Your task to perform on an android device: Go to location settings Image 0: 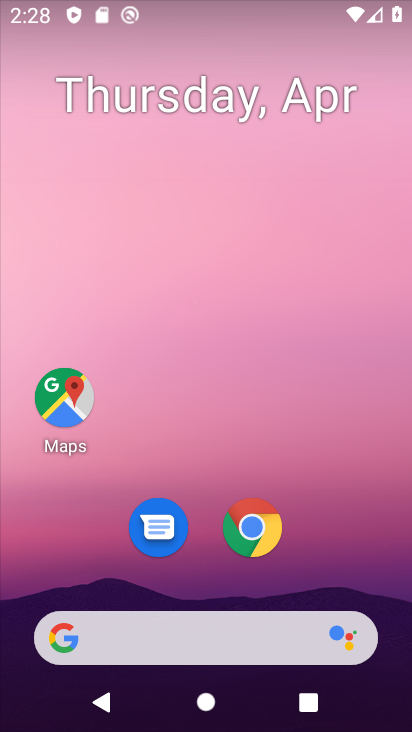
Step 0: drag from (220, 420) to (292, 0)
Your task to perform on an android device: Go to location settings Image 1: 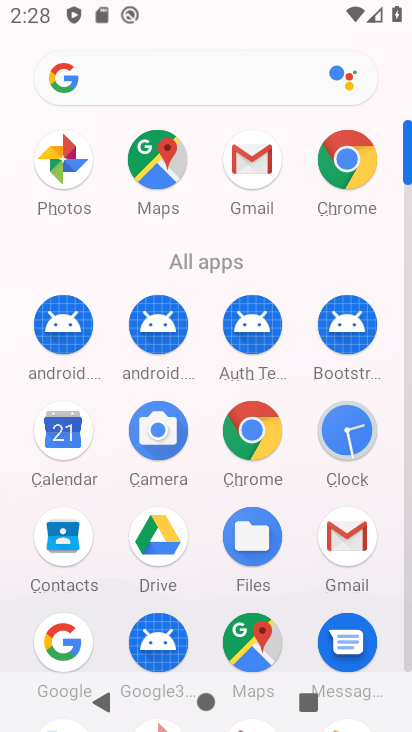
Step 1: drag from (190, 588) to (348, 18)
Your task to perform on an android device: Go to location settings Image 2: 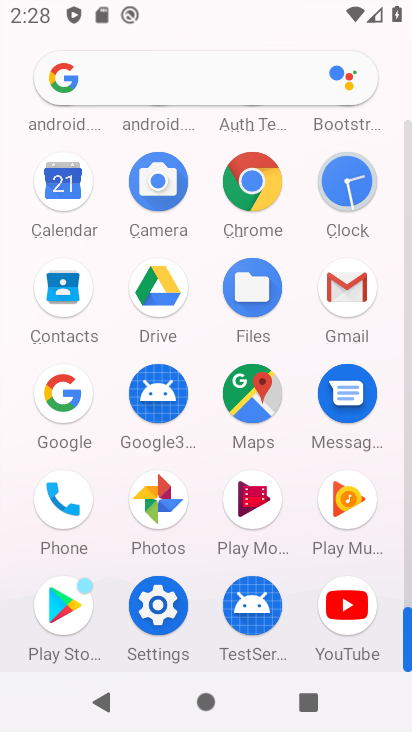
Step 2: click (164, 601)
Your task to perform on an android device: Go to location settings Image 3: 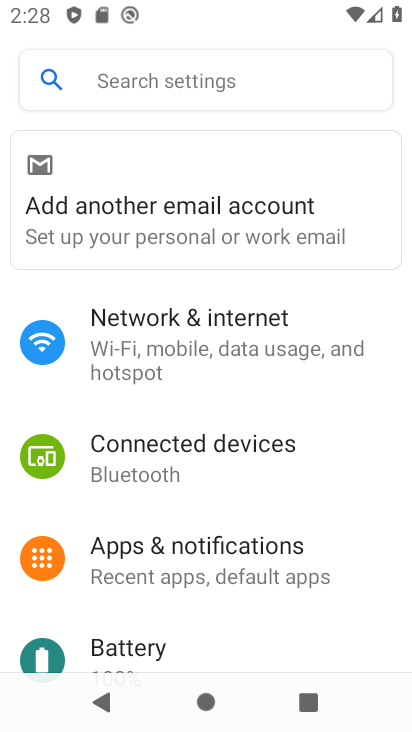
Step 3: drag from (208, 625) to (328, 4)
Your task to perform on an android device: Go to location settings Image 4: 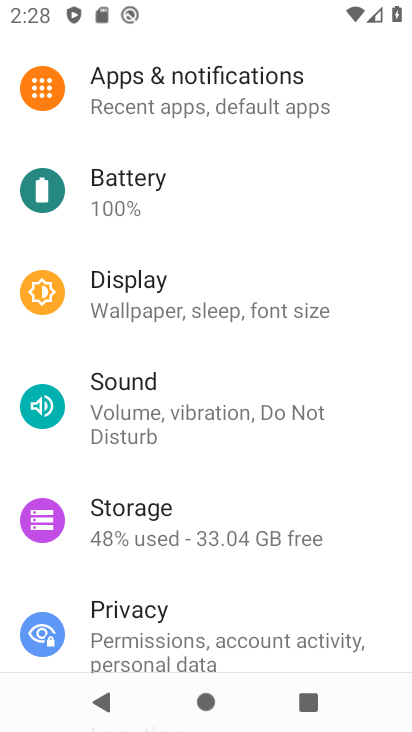
Step 4: drag from (173, 582) to (314, 14)
Your task to perform on an android device: Go to location settings Image 5: 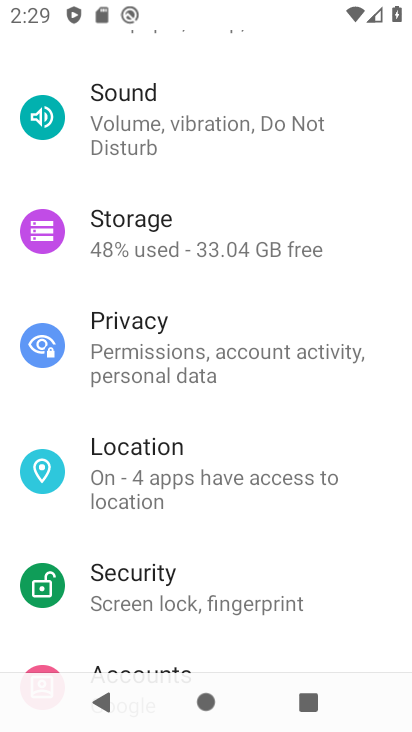
Step 5: click (137, 476)
Your task to perform on an android device: Go to location settings Image 6: 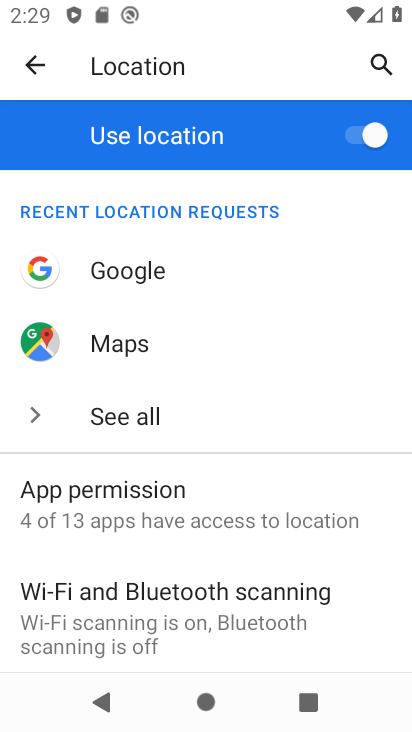
Step 6: task complete